Your task to perform on an android device: add a contact in the contacts app Image 0: 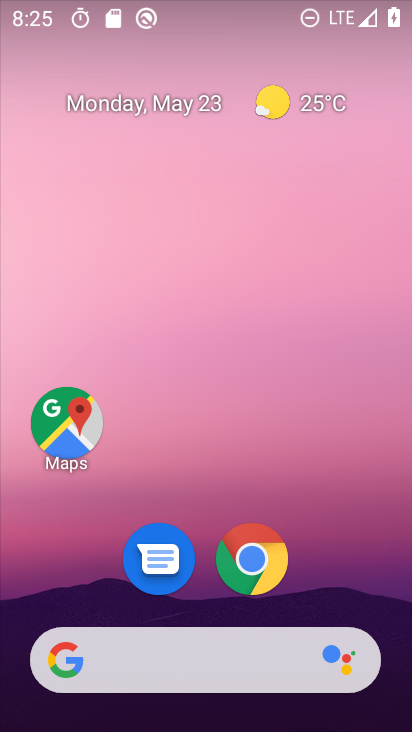
Step 0: drag from (405, 623) to (217, 34)
Your task to perform on an android device: add a contact in the contacts app Image 1: 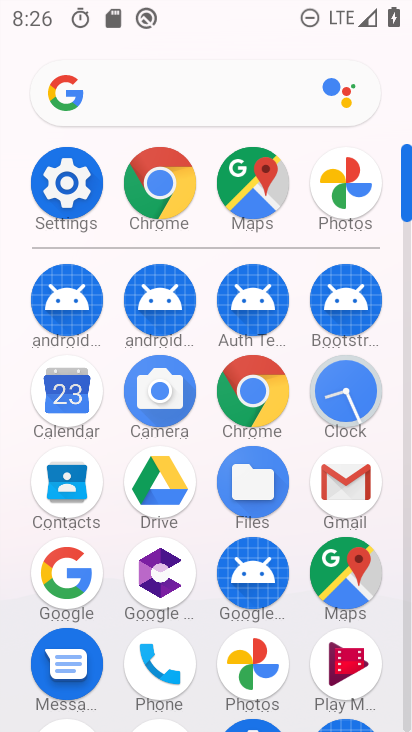
Step 1: click (55, 492)
Your task to perform on an android device: add a contact in the contacts app Image 2: 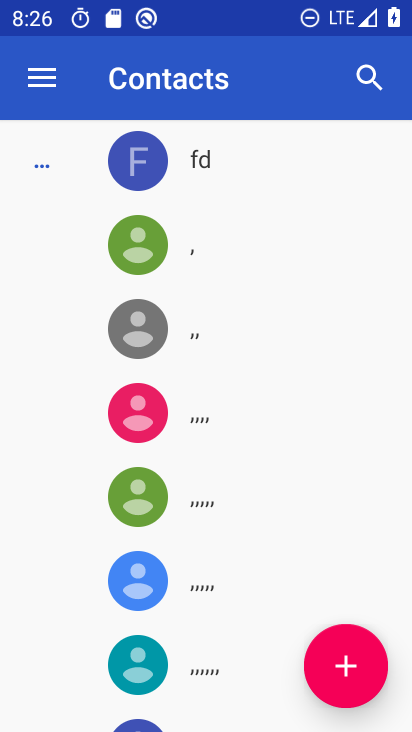
Step 2: click (342, 682)
Your task to perform on an android device: add a contact in the contacts app Image 3: 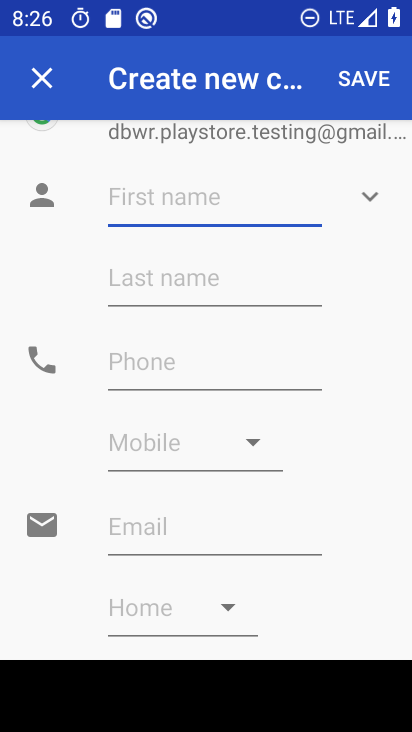
Step 3: type "karthik"
Your task to perform on an android device: add a contact in the contacts app Image 4: 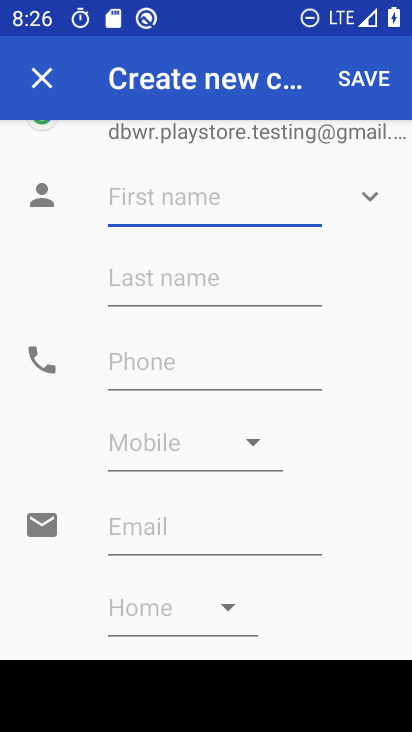
Step 4: click (381, 84)
Your task to perform on an android device: add a contact in the contacts app Image 5: 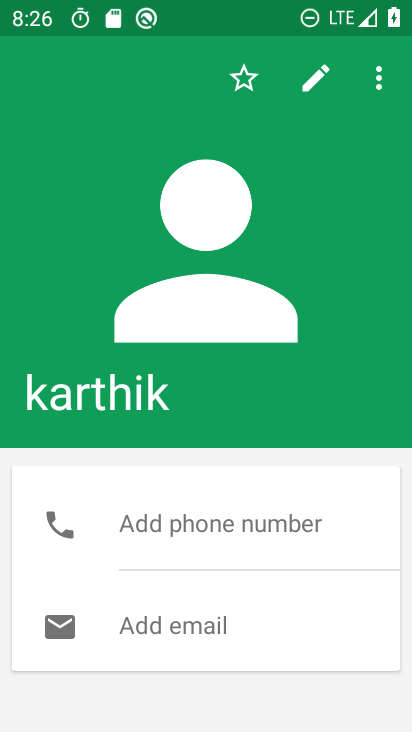
Step 5: task complete